Your task to perform on an android device: set the timer Image 0: 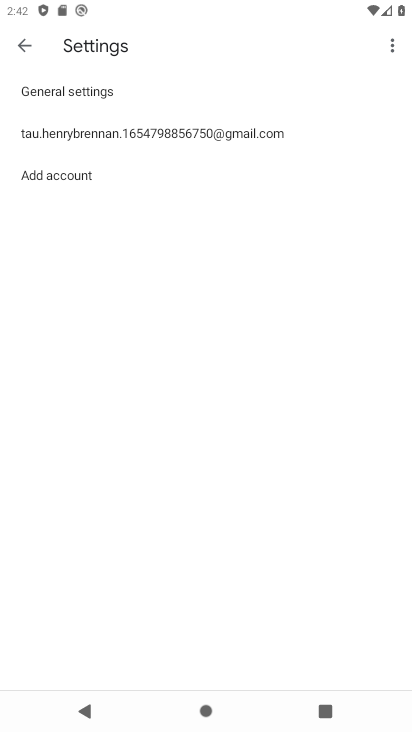
Step 0: press home button
Your task to perform on an android device: set the timer Image 1: 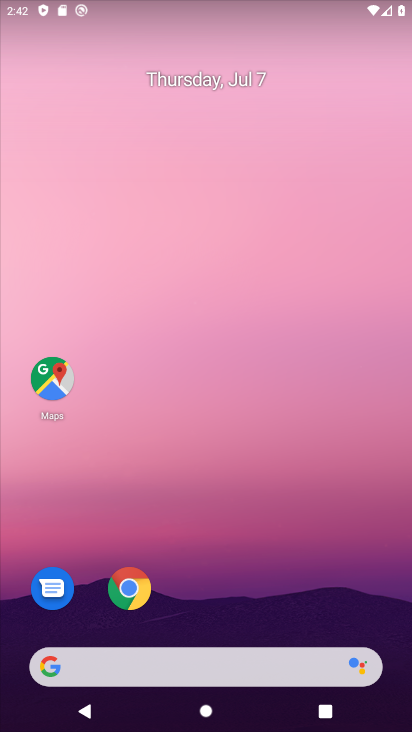
Step 1: drag from (236, 622) to (276, 56)
Your task to perform on an android device: set the timer Image 2: 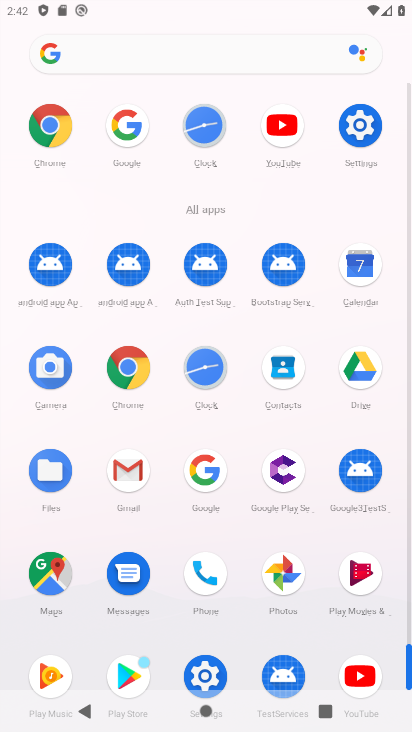
Step 2: click (205, 126)
Your task to perform on an android device: set the timer Image 3: 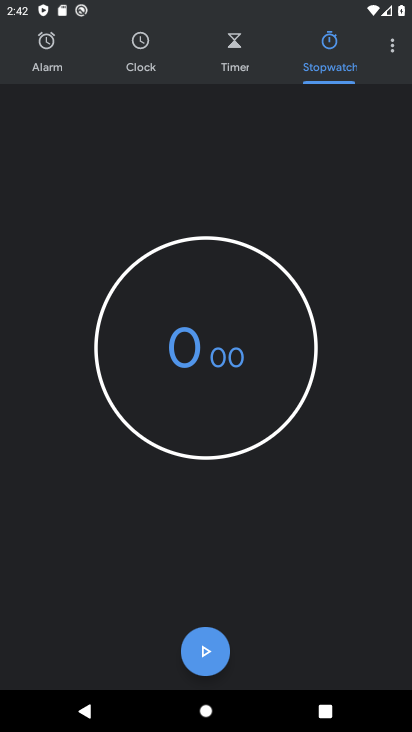
Step 3: click (238, 45)
Your task to perform on an android device: set the timer Image 4: 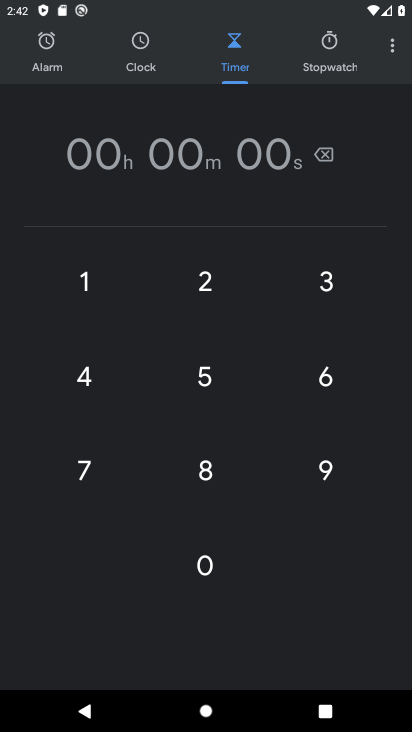
Step 4: type "1248"
Your task to perform on an android device: set the timer Image 5: 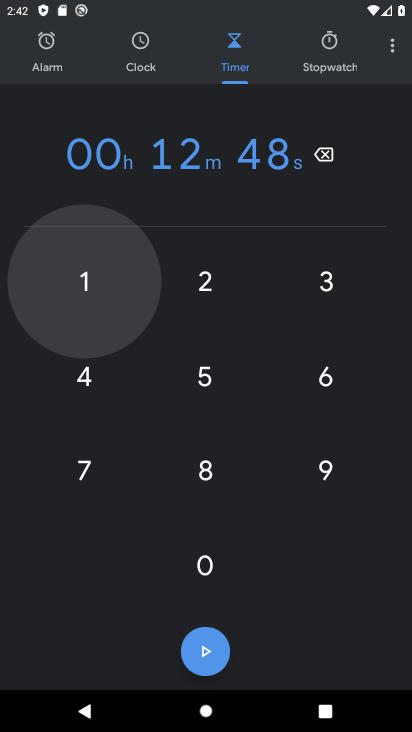
Step 5: click (202, 657)
Your task to perform on an android device: set the timer Image 6: 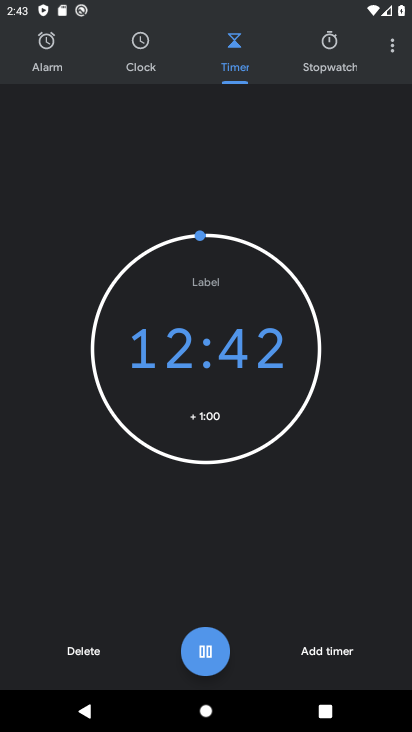
Step 6: click (202, 657)
Your task to perform on an android device: set the timer Image 7: 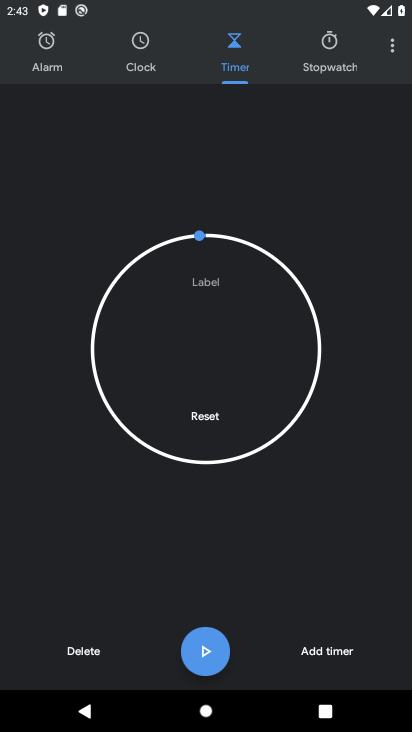
Step 7: task complete